Your task to perform on an android device: Open Chrome and go to settings Image 0: 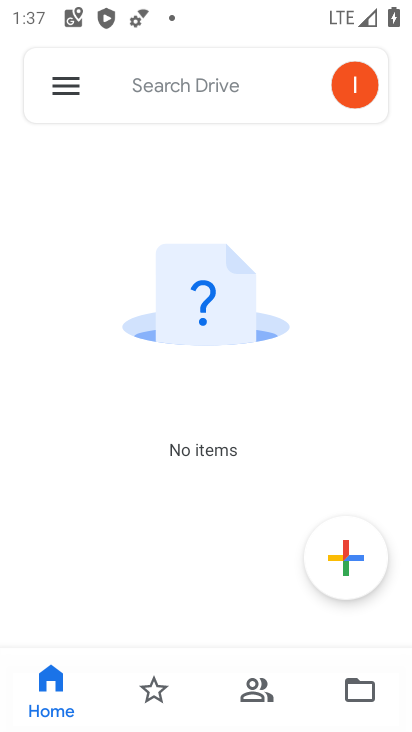
Step 0: press home button
Your task to perform on an android device: Open Chrome and go to settings Image 1: 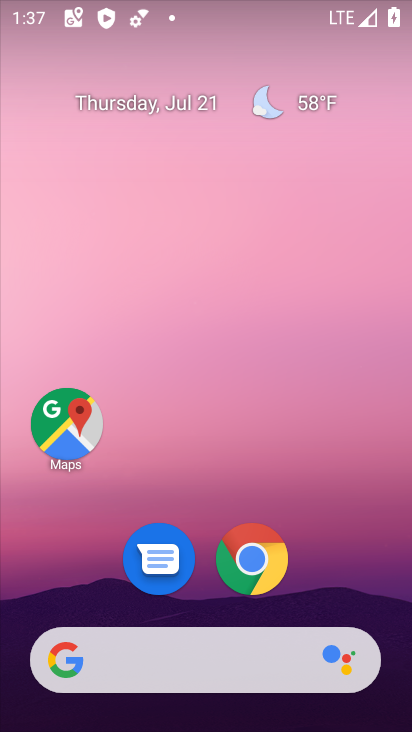
Step 1: drag from (369, 532) to (372, 114)
Your task to perform on an android device: Open Chrome and go to settings Image 2: 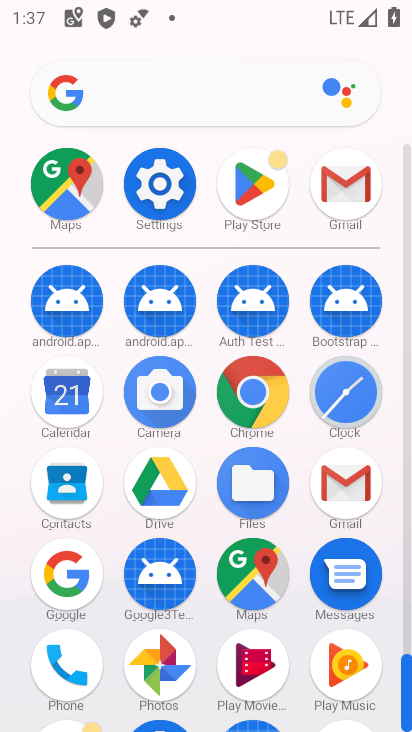
Step 2: click (257, 396)
Your task to perform on an android device: Open Chrome and go to settings Image 3: 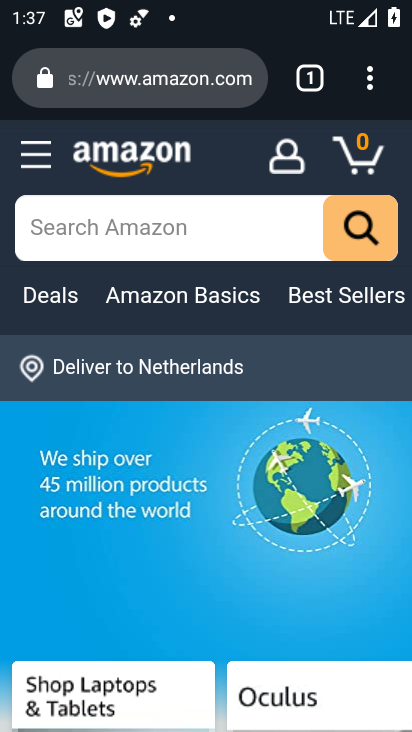
Step 3: click (370, 85)
Your task to perform on an android device: Open Chrome and go to settings Image 4: 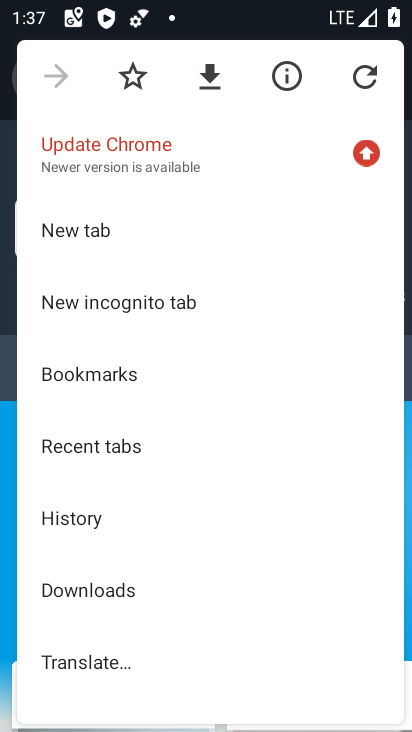
Step 4: drag from (233, 579) to (238, 516)
Your task to perform on an android device: Open Chrome and go to settings Image 5: 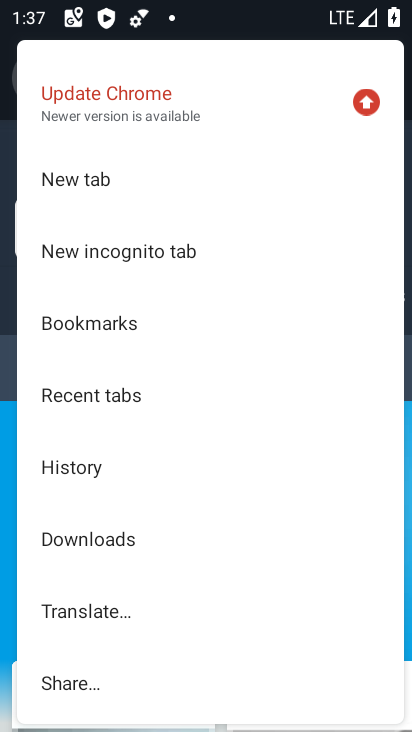
Step 5: drag from (246, 551) to (246, 462)
Your task to perform on an android device: Open Chrome and go to settings Image 6: 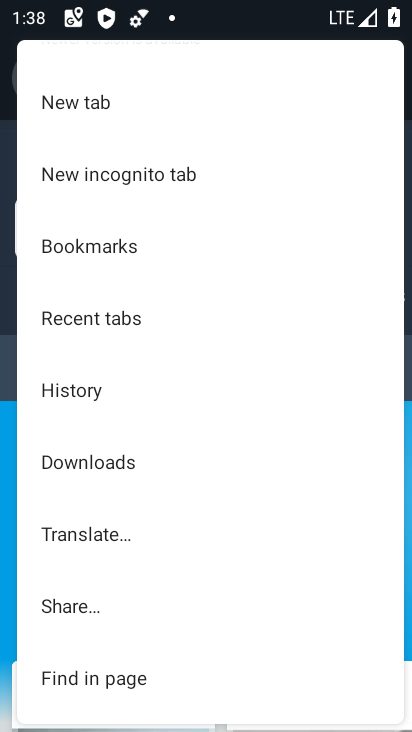
Step 6: drag from (253, 557) to (248, 485)
Your task to perform on an android device: Open Chrome and go to settings Image 7: 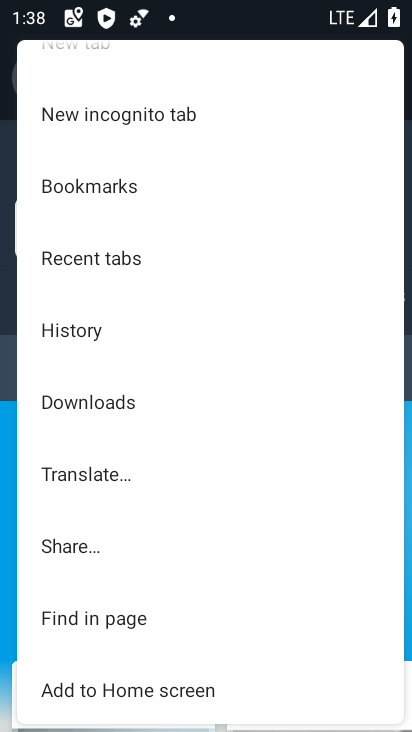
Step 7: click (297, 546)
Your task to perform on an android device: Open Chrome and go to settings Image 8: 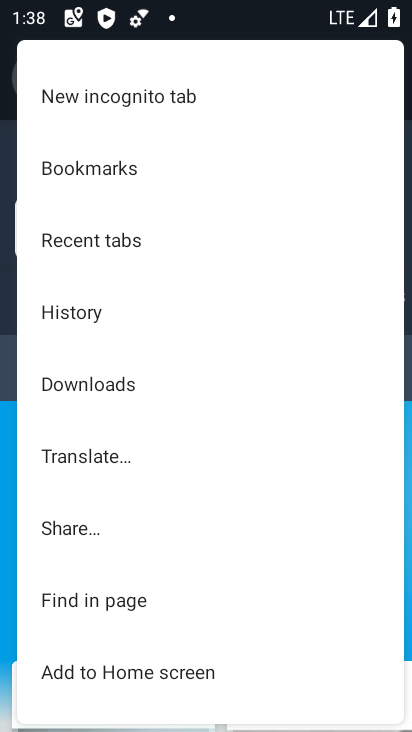
Step 8: drag from (285, 581) to (284, 503)
Your task to perform on an android device: Open Chrome and go to settings Image 9: 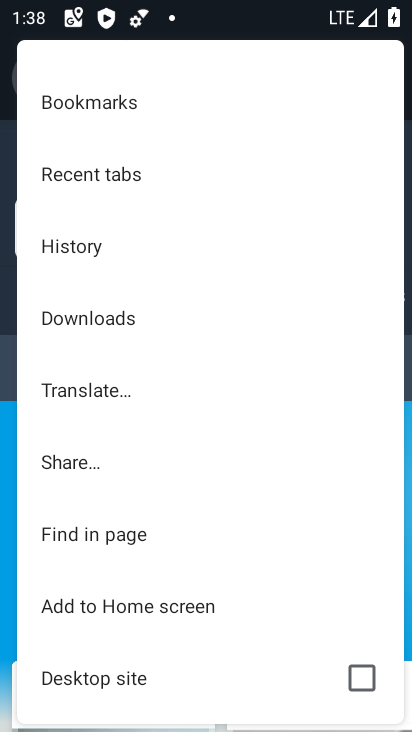
Step 9: drag from (270, 570) to (271, 497)
Your task to perform on an android device: Open Chrome and go to settings Image 10: 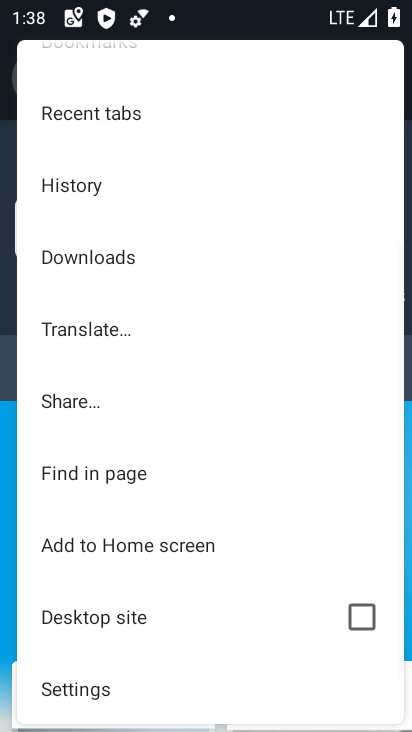
Step 10: drag from (266, 569) to (264, 454)
Your task to perform on an android device: Open Chrome and go to settings Image 11: 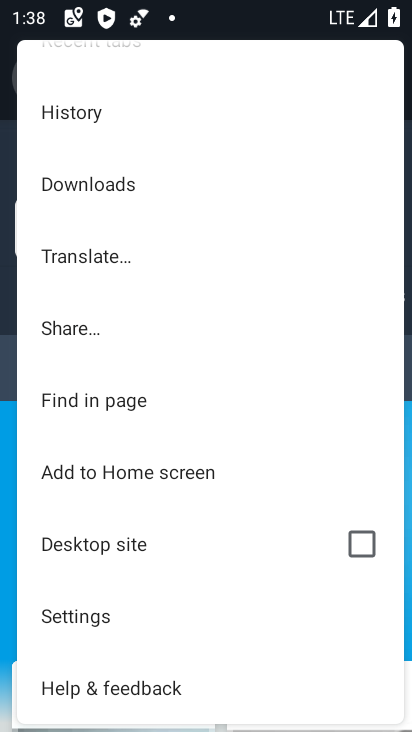
Step 11: click (112, 618)
Your task to perform on an android device: Open Chrome and go to settings Image 12: 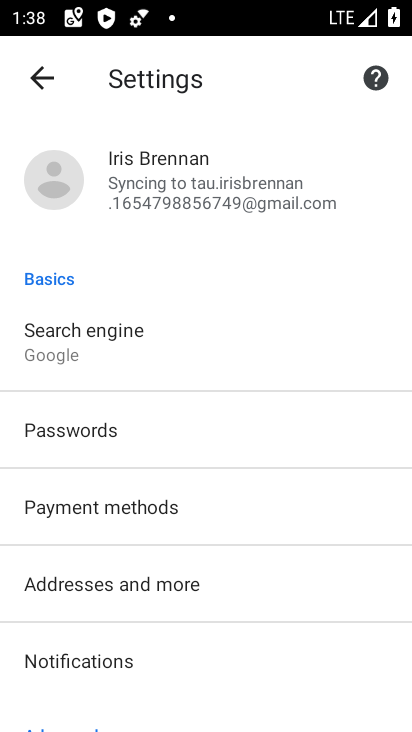
Step 12: task complete